Your task to perform on an android device: Show me productivity apps on the Play Store Image 0: 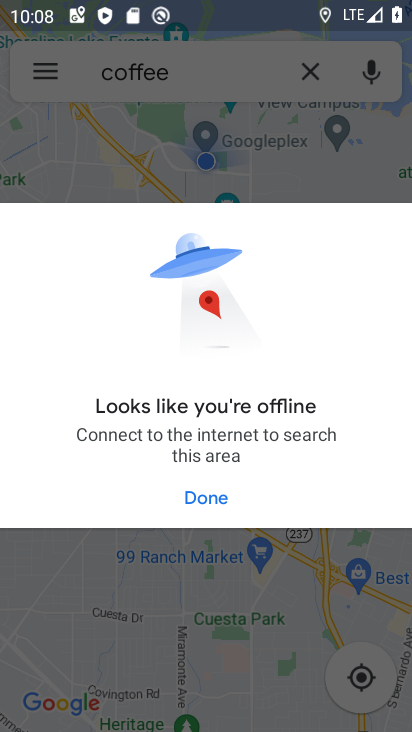
Step 0: click (214, 483)
Your task to perform on an android device: Show me productivity apps on the Play Store Image 1: 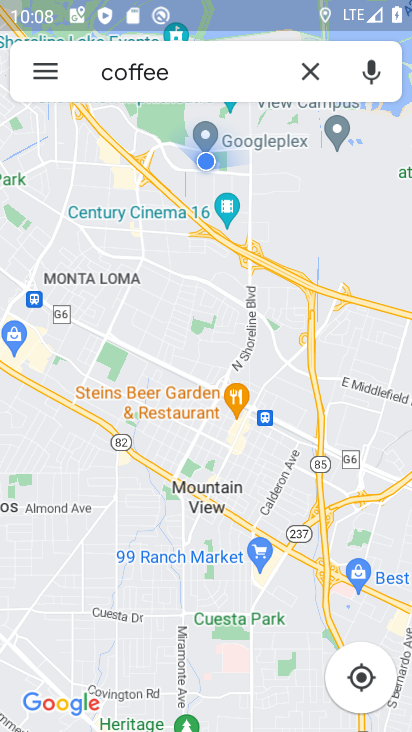
Step 1: press home button
Your task to perform on an android device: Show me productivity apps on the Play Store Image 2: 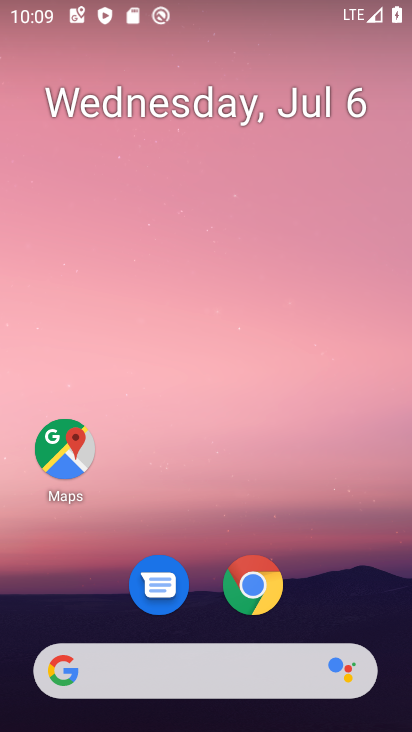
Step 2: drag from (237, 476) to (271, 1)
Your task to perform on an android device: Show me productivity apps on the Play Store Image 3: 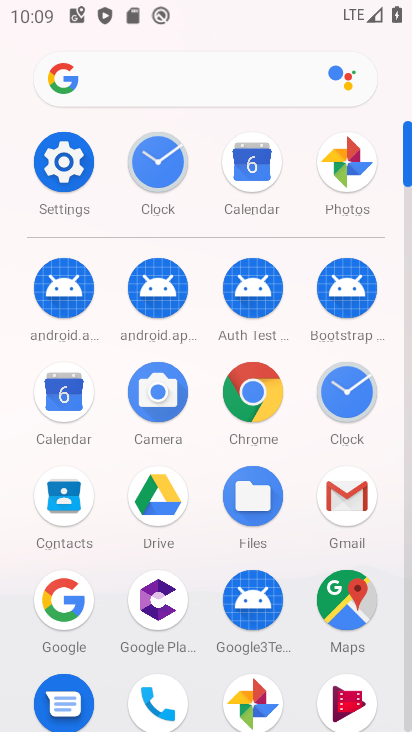
Step 3: drag from (185, 541) to (201, 171)
Your task to perform on an android device: Show me productivity apps on the Play Store Image 4: 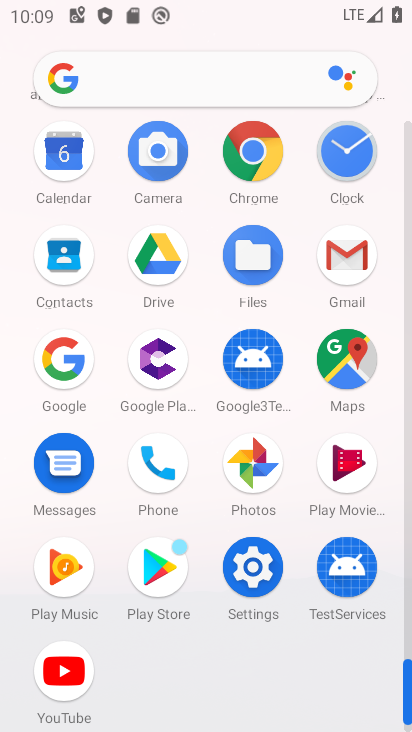
Step 4: click (162, 569)
Your task to perform on an android device: Show me productivity apps on the Play Store Image 5: 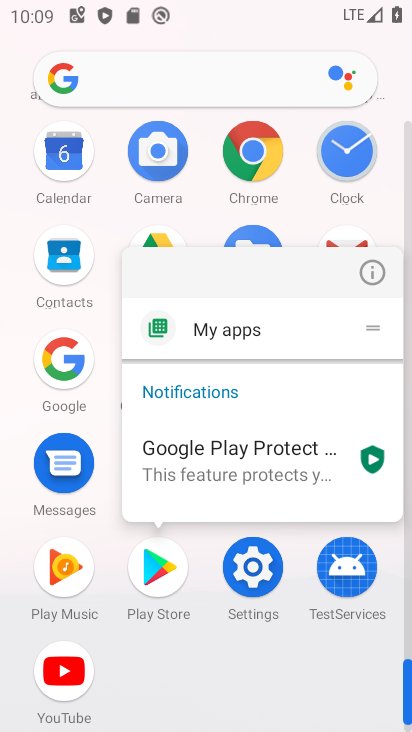
Step 5: click (162, 569)
Your task to perform on an android device: Show me productivity apps on the Play Store Image 6: 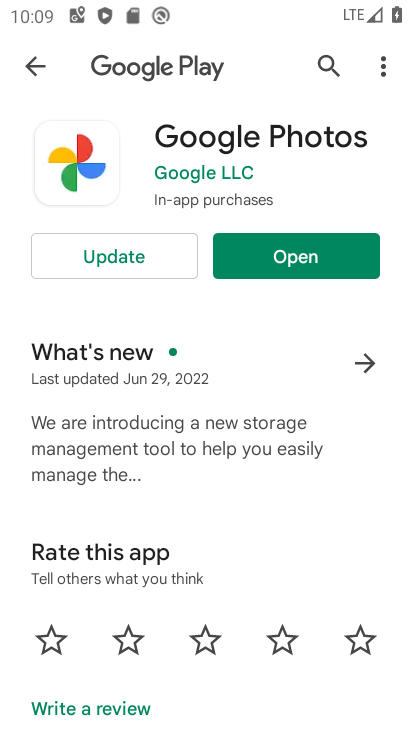
Step 6: click (36, 61)
Your task to perform on an android device: Show me productivity apps on the Play Store Image 7: 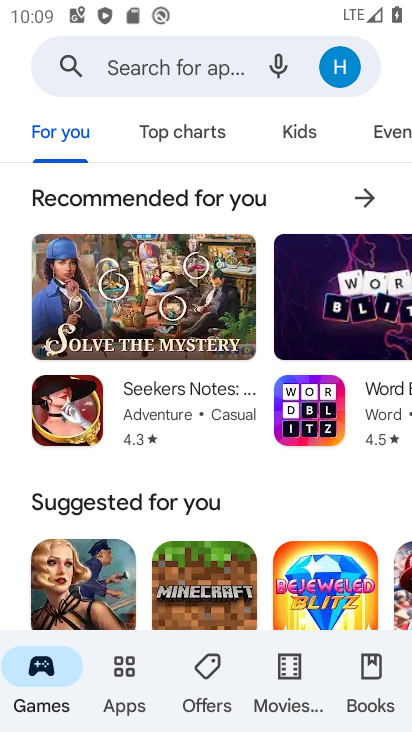
Step 7: click (121, 666)
Your task to perform on an android device: Show me productivity apps on the Play Store Image 8: 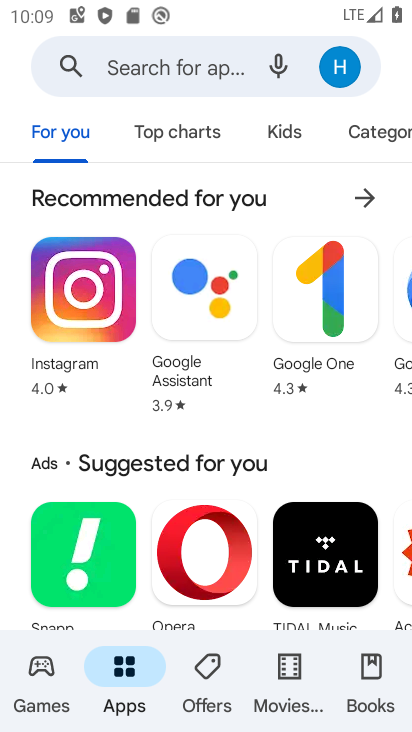
Step 8: click (377, 133)
Your task to perform on an android device: Show me productivity apps on the Play Store Image 9: 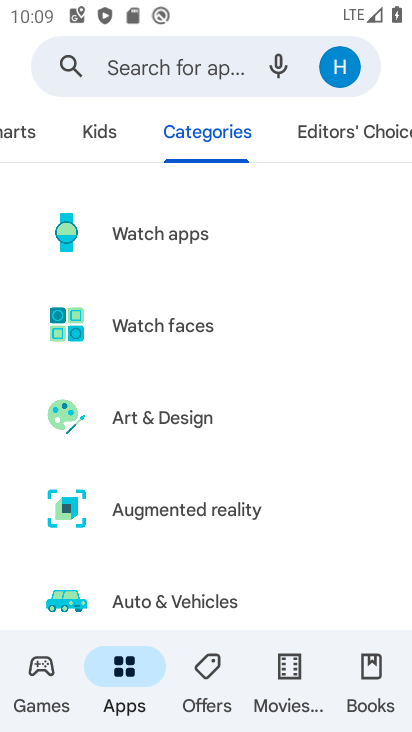
Step 9: drag from (219, 557) to (263, 106)
Your task to perform on an android device: Show me productivity apps on the Play Store Image 10: 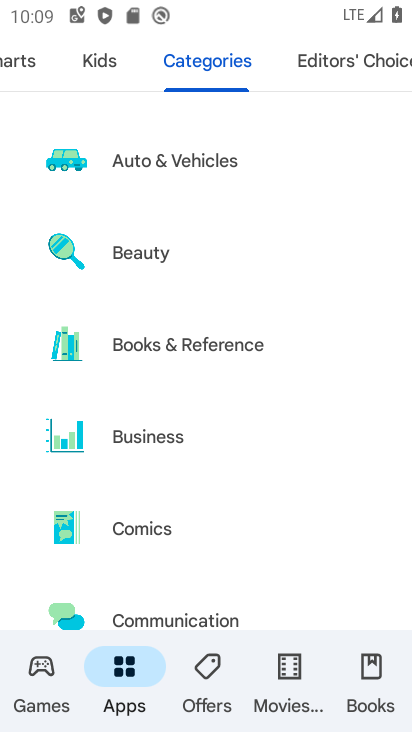
Step 10: drag from (184, 506) to (236, 75)
Your task to perform on an android device: Show me productivity apps on the Play Store Image 11: 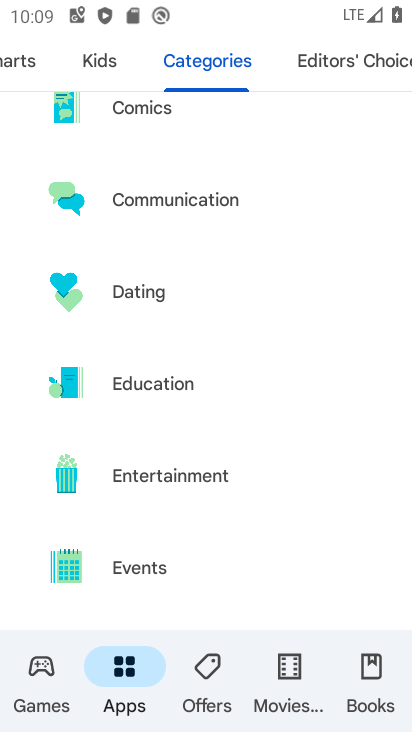
Step 11: drag from (189, 521) to (227, 122)
Your task to perform on an android device: Show me productivity apps on the Play Store Image 12: 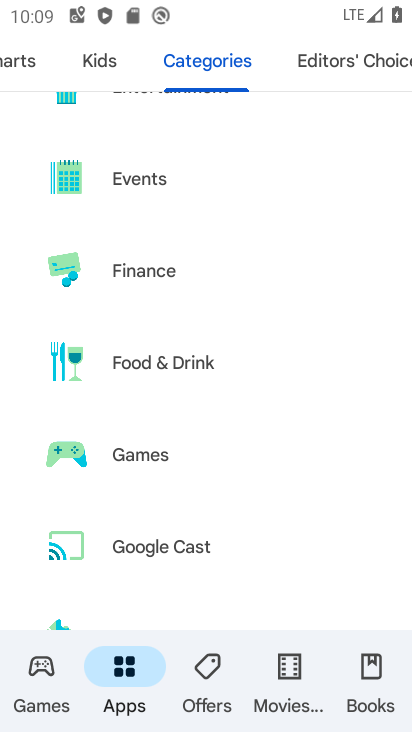
Step 12: drag from (207, 501) to (211, 149)
Your task to perform on an android device: Show me productivity apps on the Play Store Image 13: 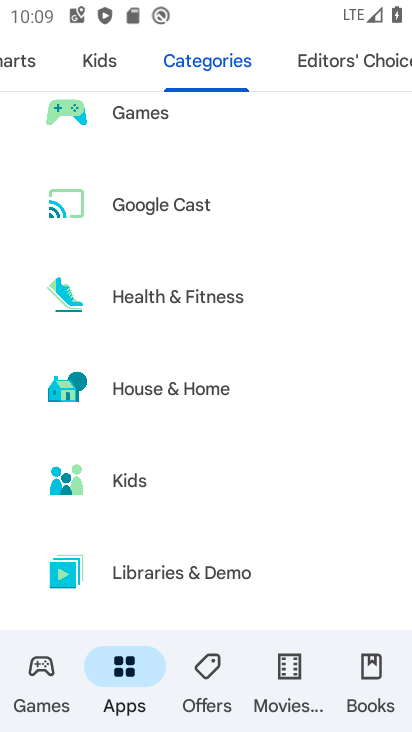
Step 13: drag from (193, 508) to (205, 164)
Your task to perform on an android device: Show me productivity apps on the Play Store Image 14: 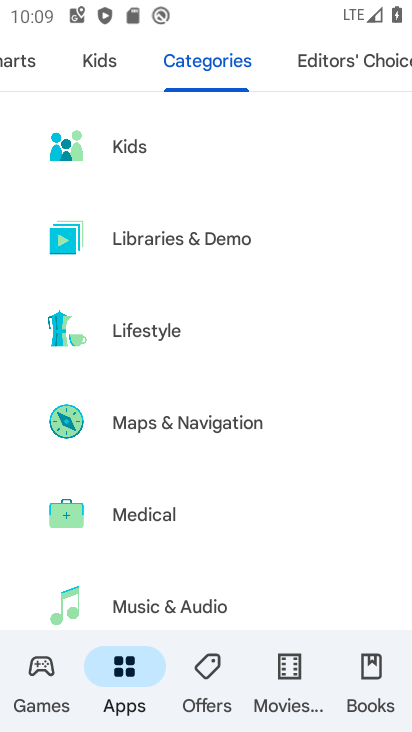
Step 14: drag from (225, 454) to (255, 122)
Your task to perform on an android device: Show me productivity apps on the Play Store Image 15: 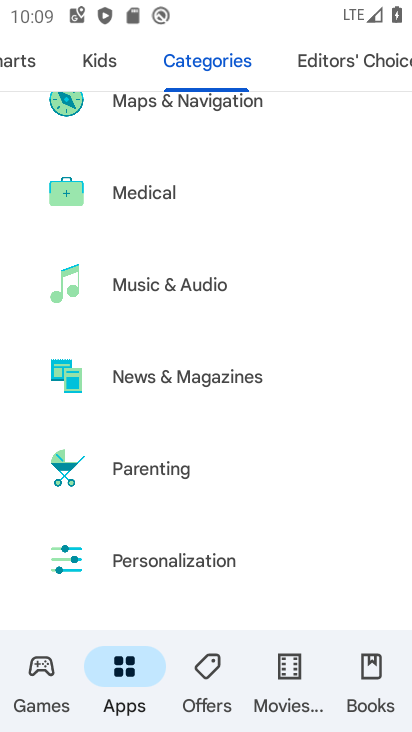
Step 15: drag from (189, 472) to (196, 203)
Your task to perform on an android device: Show me productivity apps on the Play Store Image 16: 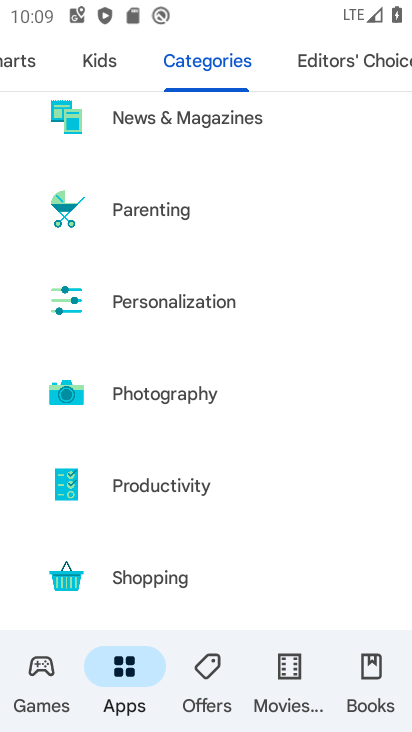
Step 16: click (177, 484)
Your task to perform on an android device: Show me productivity apps on the Play Store Image 17: 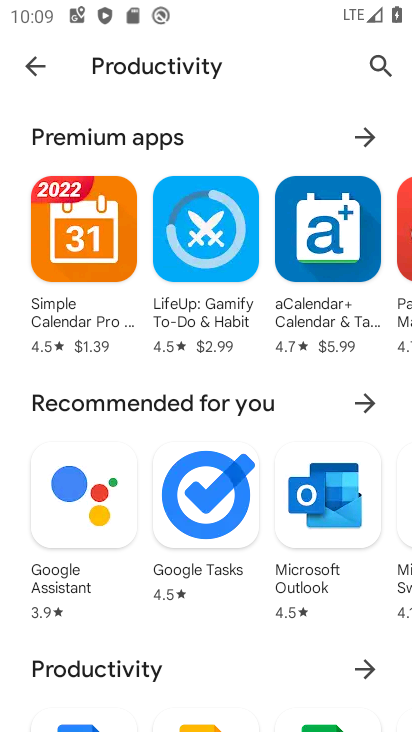
Step 17: drag from (240, 408) to (269, 82)
Your task to perform on an android device: Show me productivity apps on the Play Store Image 18: 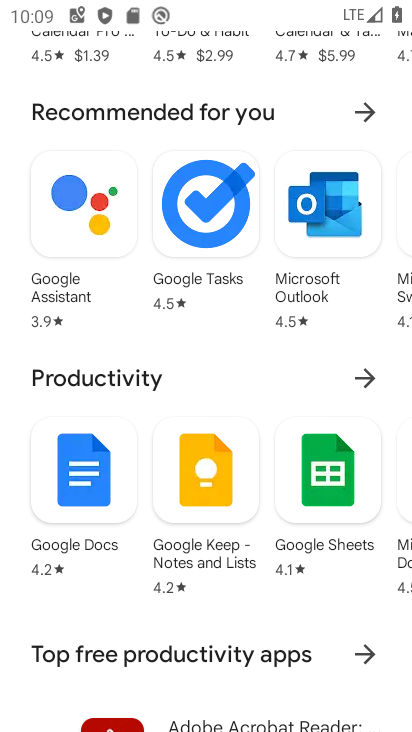
Step 18: click (360, 377)
Your task to perform on an android device: Show me productivity apps on the Play Store Image 19: 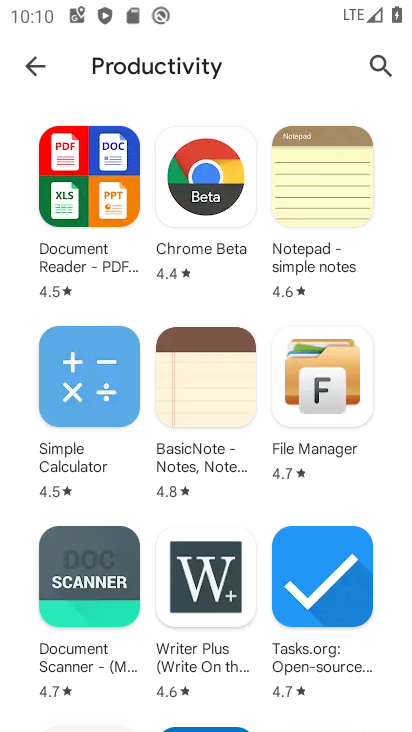
Step 19: task complete